Your task to perform on an android device: Find coffee shops on Maps Image 0: 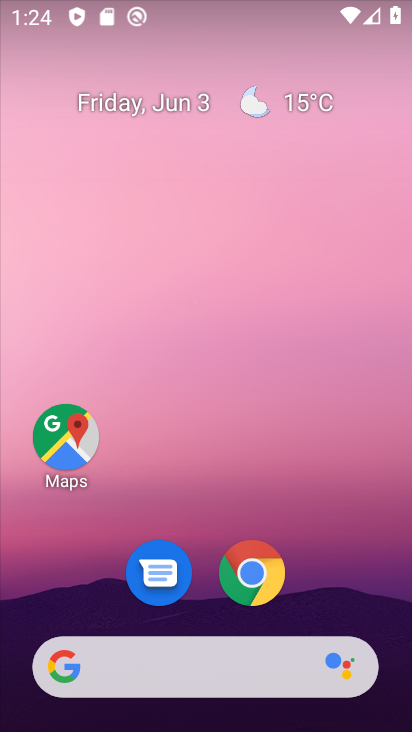
Step 0: task complete